Your task to perform on an android device: Open the map Image 0: 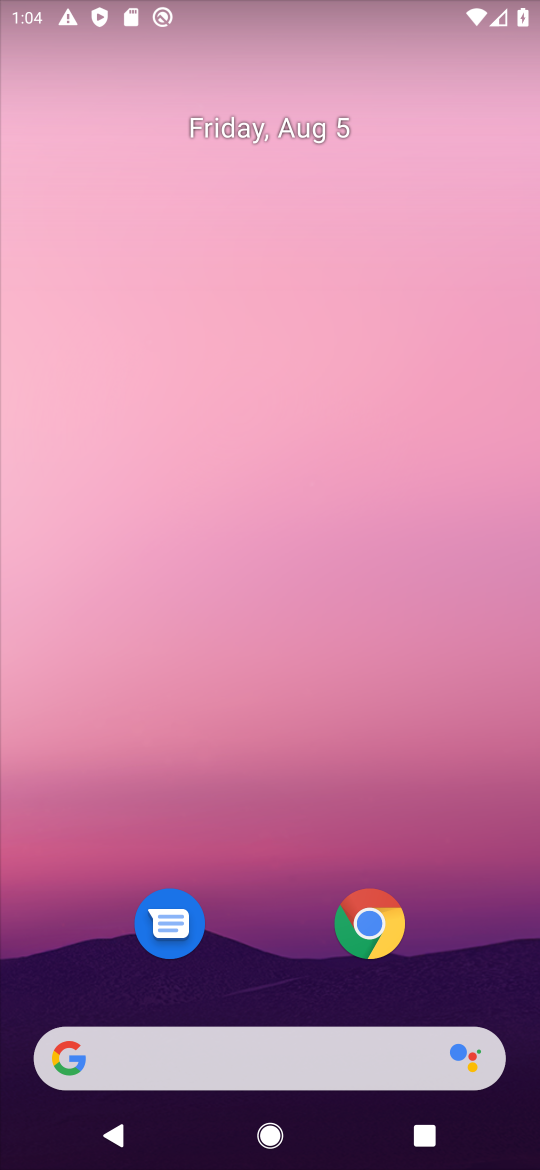
Step 0: drag from (284, 984) to (197, 27)
Your task to perform on an android device: Open the map Image 1: 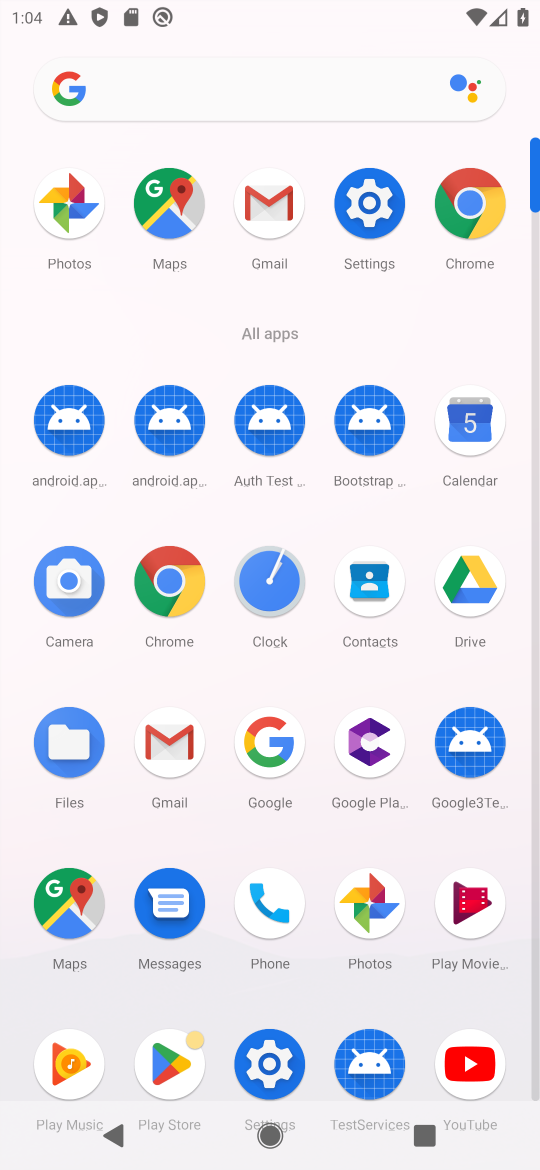
Step 1: click (61, 903)
Your task to perform on an android device: Open the map Image 2: 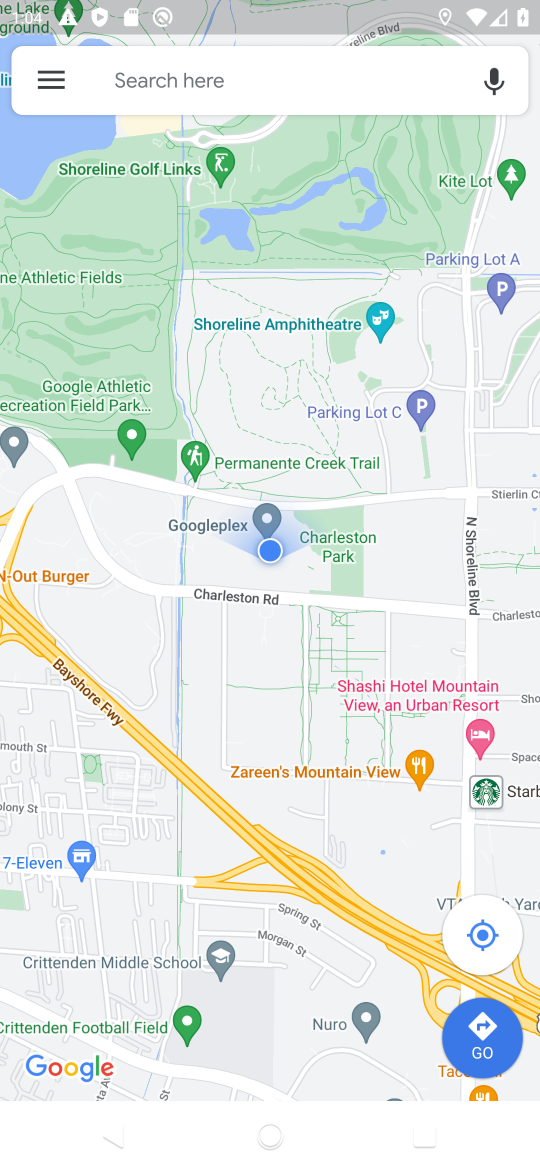
Step 2: task complete